Your task to perform on an android device: Open Google Image 0: 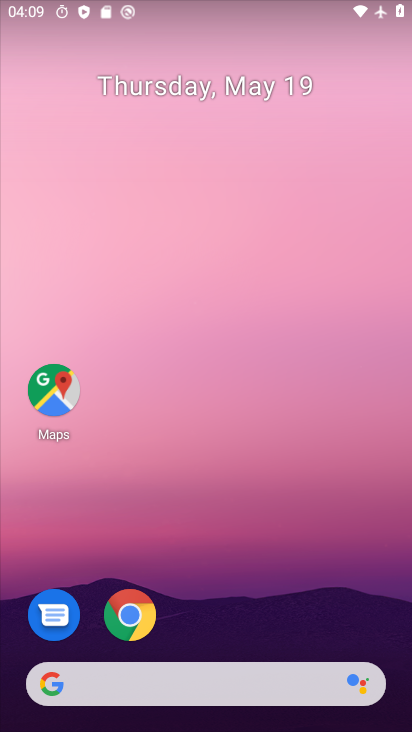
Step 0: drag from (264, 636) to (272, 0)
Your task to perform on an android device: Open Google Image 1: 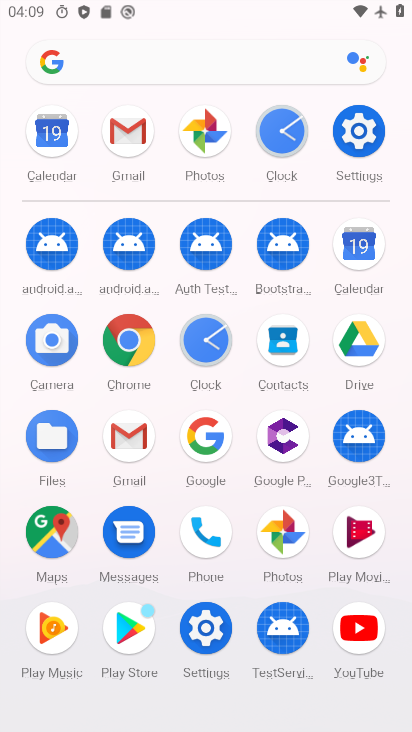
Step 1: click (198, 440)
Your task to perform on an android device: Open Google Image 2: 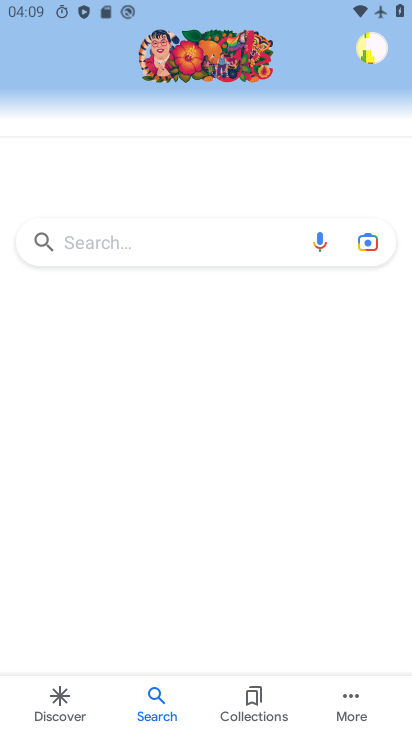
Step 2: task complete